Your task to perform on an android device: Search for vegetarian restaurants on Maps Image 0: 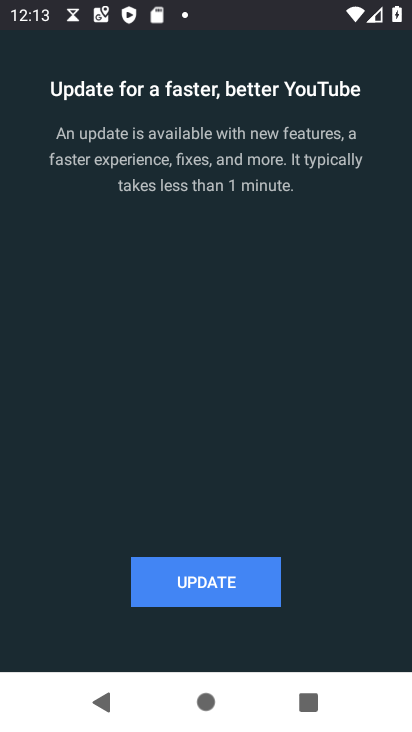
Step 0: press home button
Your task to perform on an android device: Search for vegetarian restaurants on Maps Image 1: 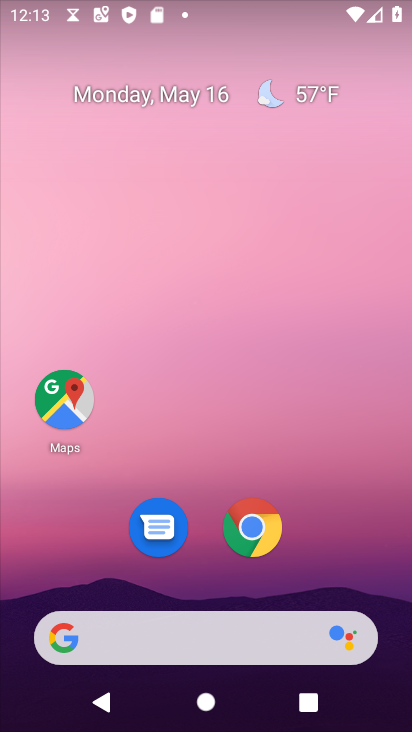
Step 1: click (61, 397)
Your task to perform on an android device: Search for vegetarian restaurants on Maps Image 2: 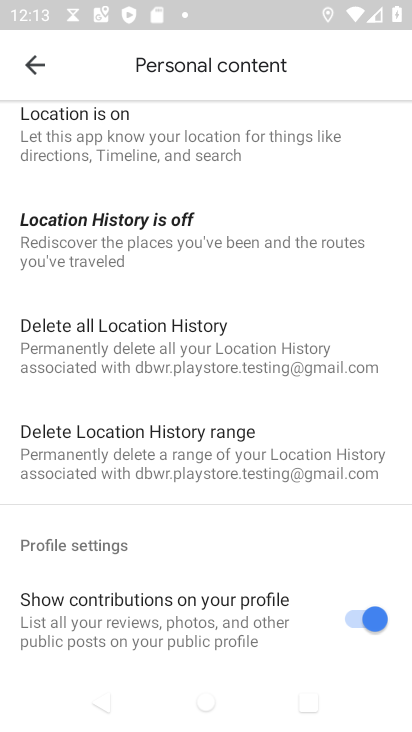
Step 2: click (36, 71)
Your task to perform on an android device: Search for vegetarian restaurants on Maps Image 3: 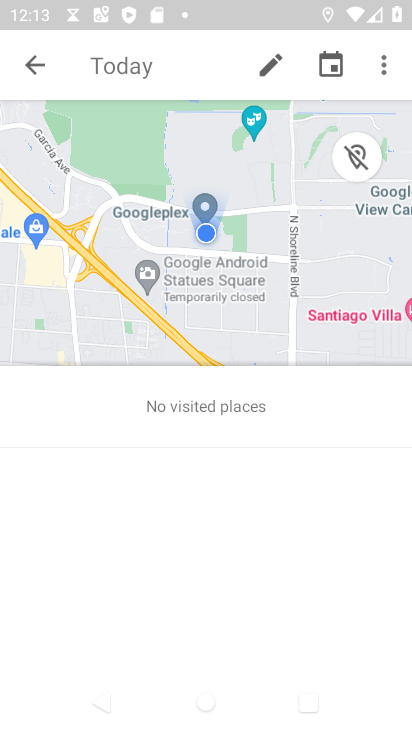
Step 3: click (24, 55)
Your task to perform on an android device: Search for vegetarian restaurants on Maps Image 4: 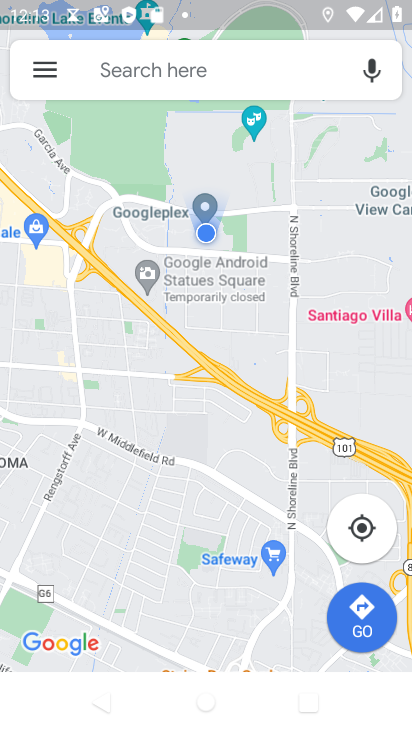
Step 4: click (252, 84)
Your task to perform on an android device: Search for vegetarian restaurants on Maps Image 5: 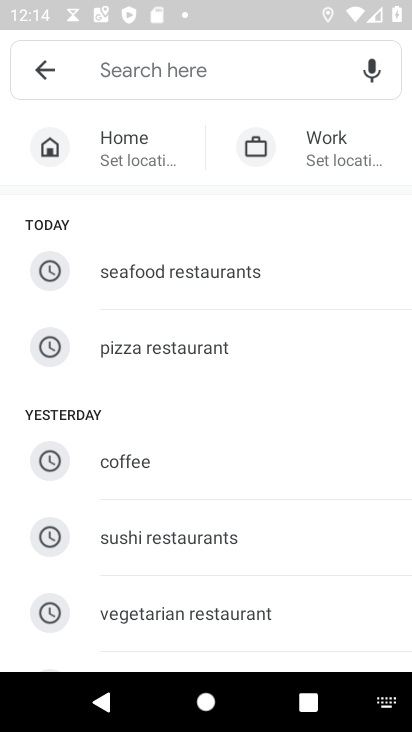
Step 5: type "vegetarian restaurants"
Your task to perform on an android device: Search for vegetarian restaurants on Maps Image 6: 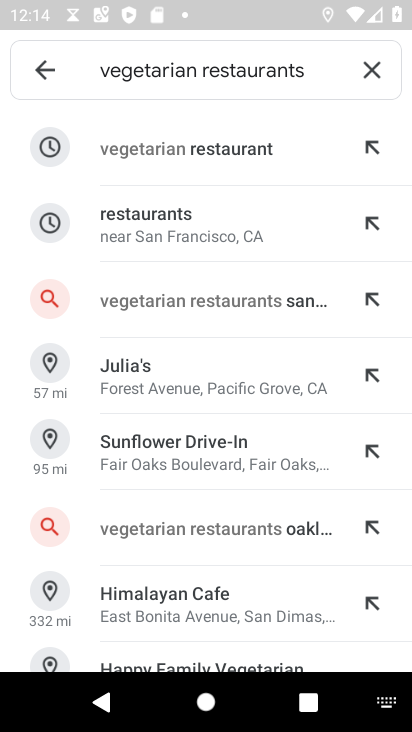
Step 6: click (239, 156)
Your task to perform on an android device: Search for vegetarian restaurants on Maps Image 7: 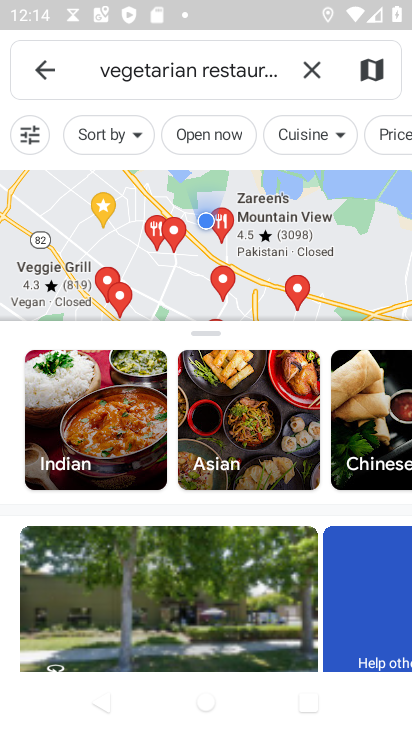
Step 7: task complete